Your task to perform on an android device: Go to Yahoo.com Image 0: 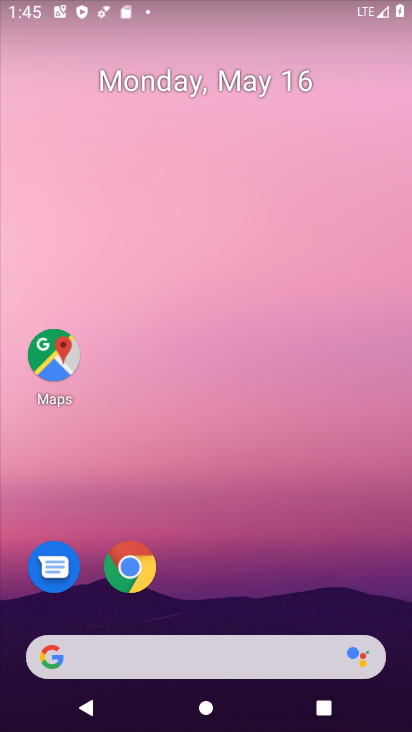
Step 0: click (143, 566)
Your task to perform on an android device: Go to Yahoo.com Image 1: 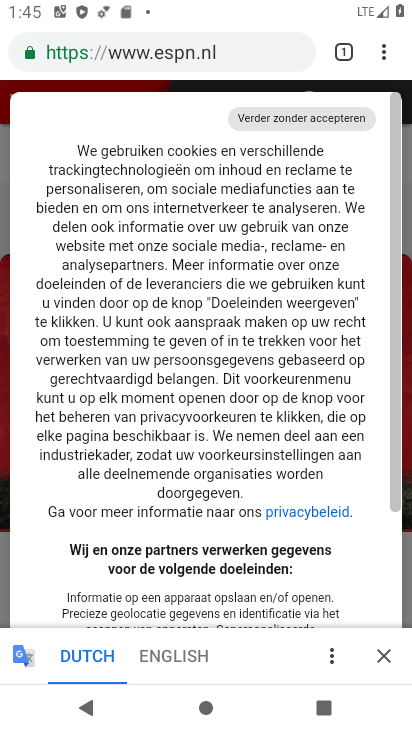
Step 1: click (286, 49)
Your task to perform on an android device: Go to Yahoo.com Image 2: 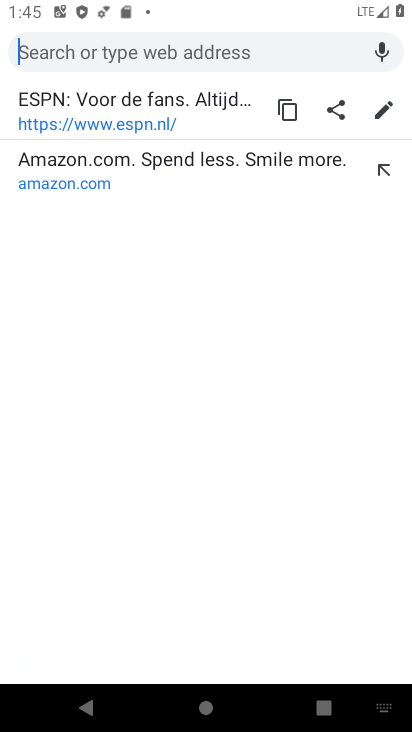
Step 2: type "yahoo.com"
Your task to perform on an android device: Go to Yahoo.com Image 3: 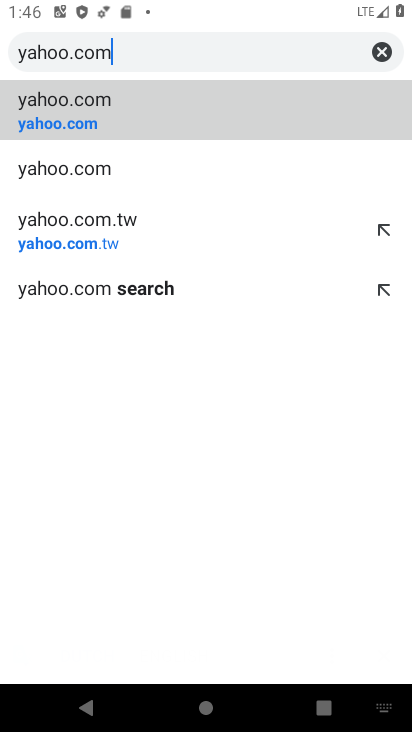
Step 3: click (55, 122)
Your task to perform on an android device: Go to Yahoo.com Image 4: 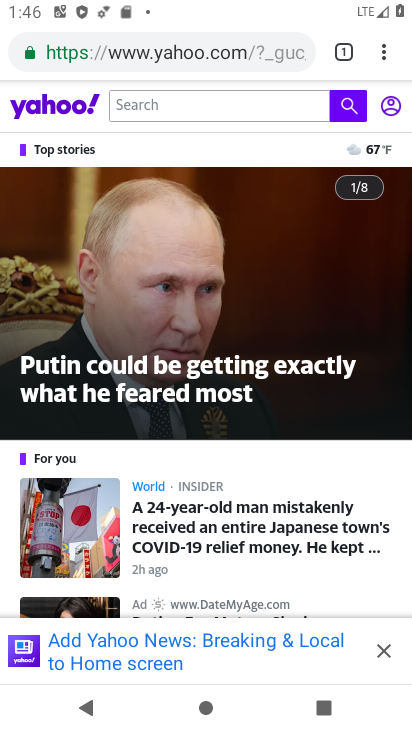
Step 4: task complete